Your task to perform on an android device: open app "WhatsApp Messenger" Image 0: 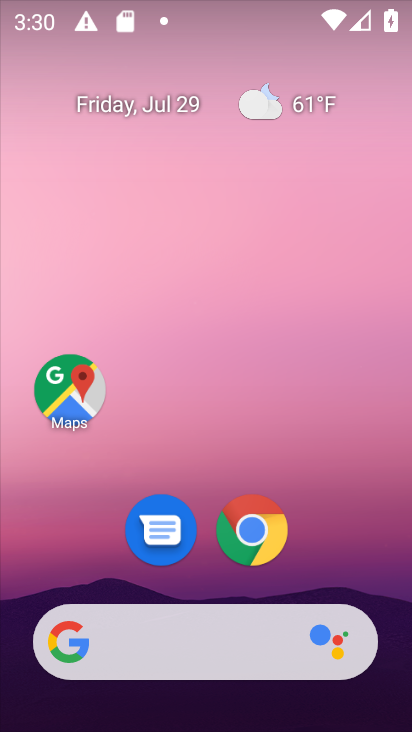
Step 0: drag from (336, 586) to (307, 1)
Your task to perform on an android device: open app "WhatsApp Messenger" Image 1: 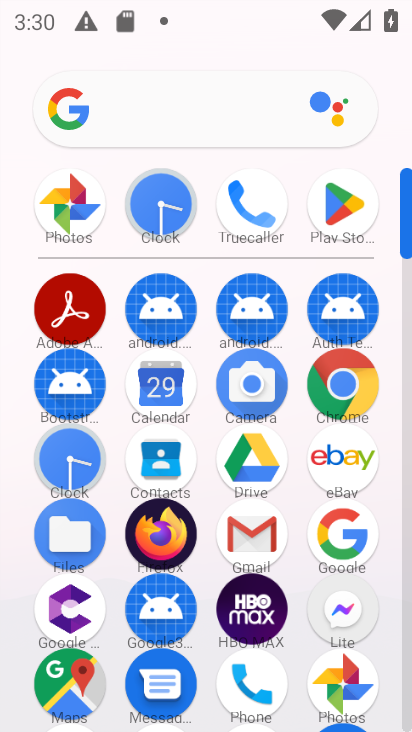
Step 1: click (338, 205)
Your task to perform on an android device: open app "WhatsApp Messenger" Image 2: 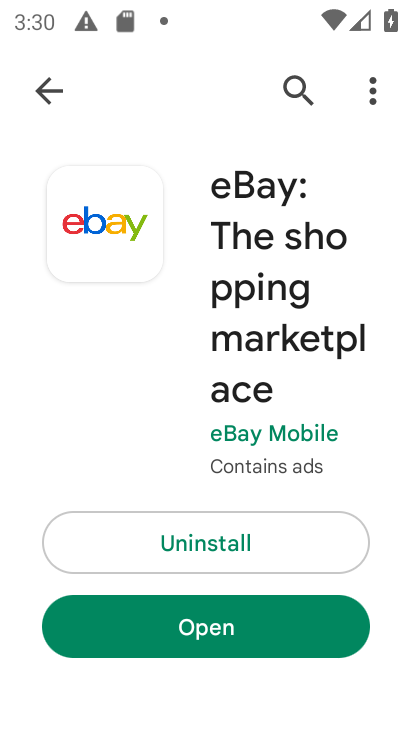
Step 2: click (286, 93)
Your task to perform on an android device: open app "WhatsApp Messenger" Image 3: 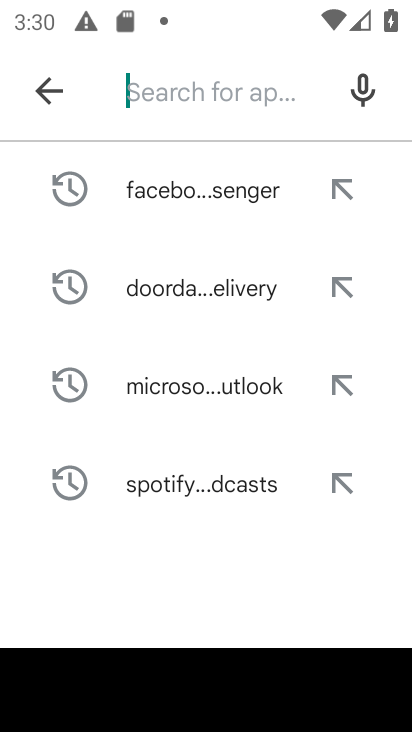
Step 3: type "WhatsApp Messenger"
Your task to perform on an android device: open app "WhatsApp Messenger" Image 4: 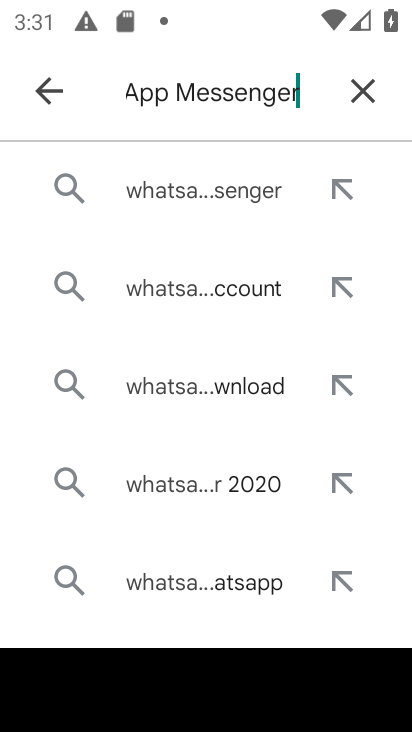
Step 4: click (179, 199)
Your task to perform on an android device: open app "WhatsApp Messenger" Image 5: 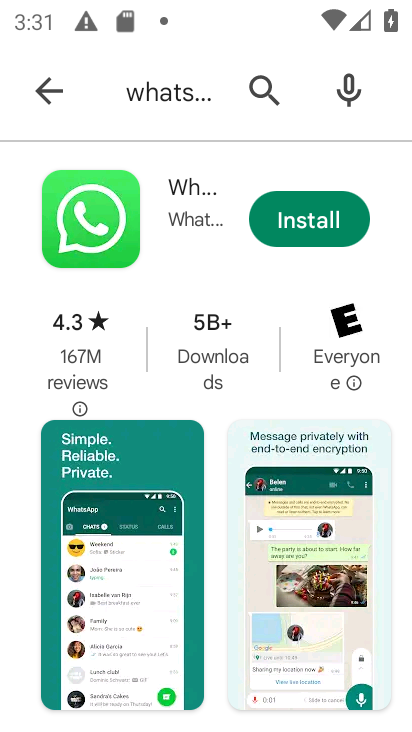
Step 5: task complete